Your task to perform on an android device: View the shopping cart on walmart.com. Search for corsair k70 on walmart.com, select the first entry, and add it to the cart. Image 0: 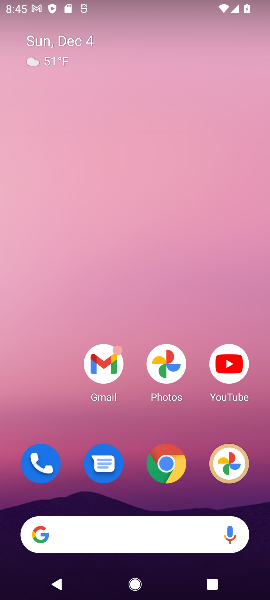
Step 0: click (133, 529)
Your task to perform on an android device: View the shopping cart on walmart.com. Search for corsair k70 on walmart.com, select the first entry, and add it to the cart. Image 1: 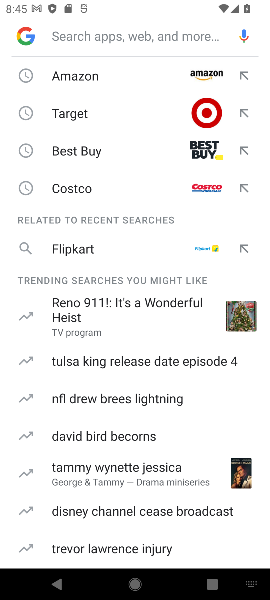
Step 1: type "walmmart"
Your task to perform on an android device: View the shopping cart on walmart.com. Search for corsair k70 on walmart.com, select the first entry, and add it to the cart. Image 2: 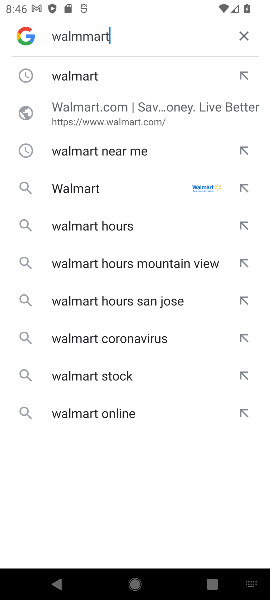
Step 2: click (79, 73)
Your task to perform on an android device: View the shopping cart on walmart.com. Search for corsair k70 on walmart.com, select the first entry, and add it to the cart. Image 3: 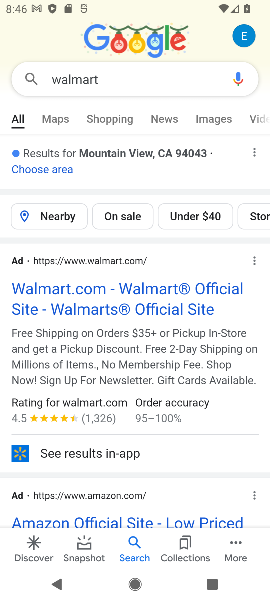
Step 3: click (91, 283)
Your task to perform on an android device: View the shopping cart on walmart.com. Search for corsair k70 on walmart.com, select the first entry, and add it to the cart. Image 4: 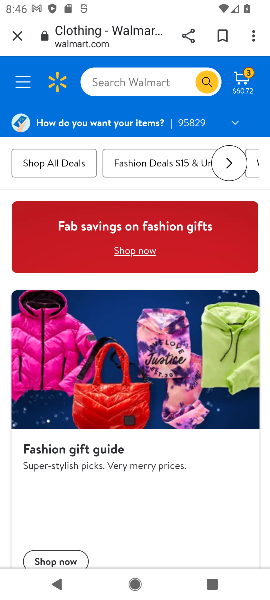
Step 4: task complete